Your task to perform on an android device: toggle location history Image 0: 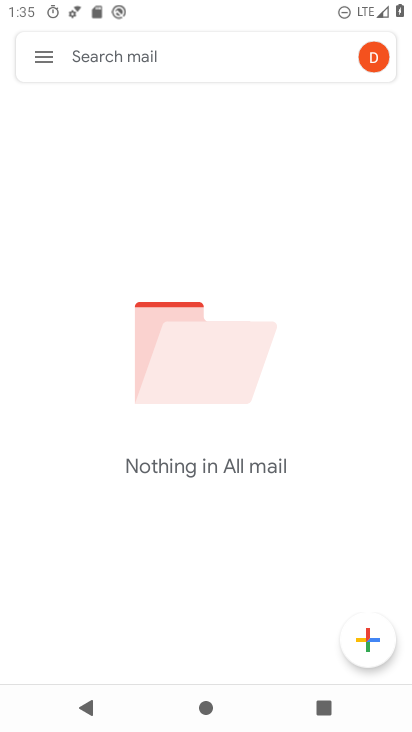
Step 0: press home button
Your task to perform on an android device: toggle location history Image 1: 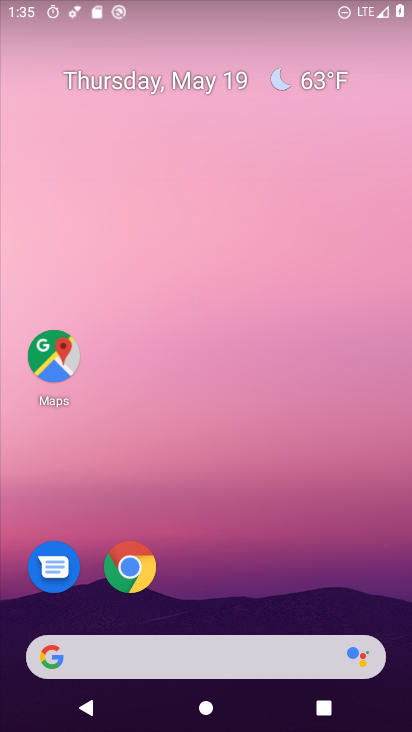
Step 1: drag from (157, 659) to (272, 171)
Your task to perform on an android device: toggle location history Image 2: 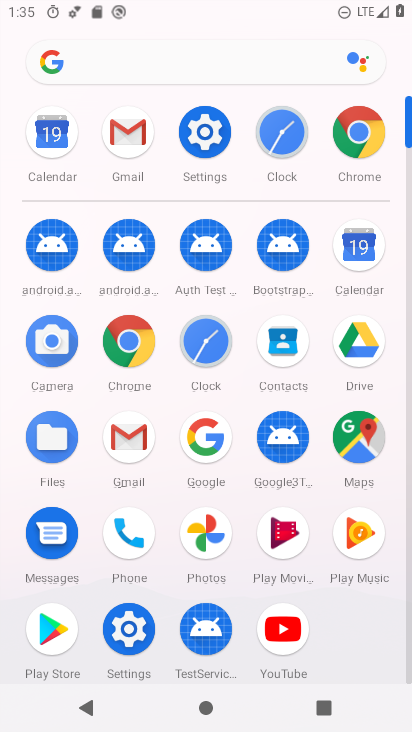
Step 2: click (360, 446)
Your task to perform on an android device: toggle location history Image 3: 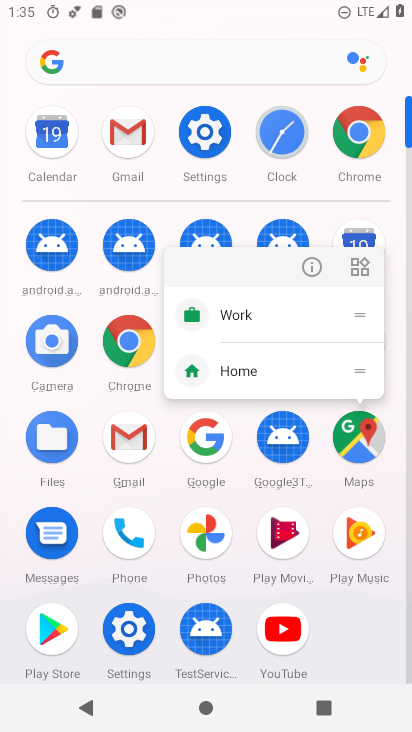
Step 3: click (363, 447)
Your task to perform on an android device: toggle location history Image 4: 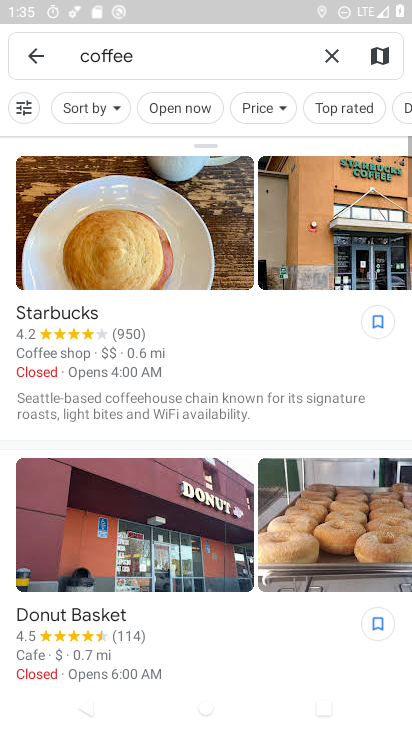
Step 4: click (35, 54)
Your task to perform on an android device: toggle location history Image 5: 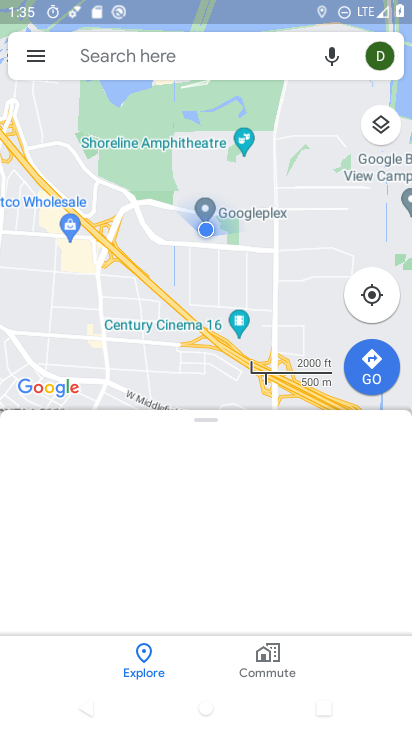
Step 5: click (42, 54)
Your task to perform on an android device: toggle location history Image 6: 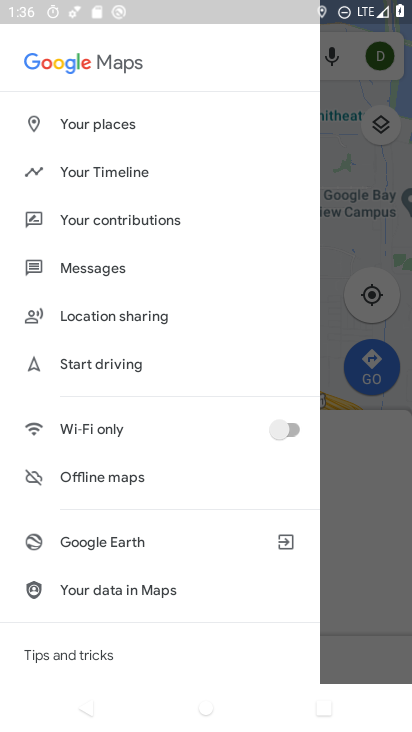
Step 6: click (121, 166)
Your task to perform on an android device: toggle location history Image 7: 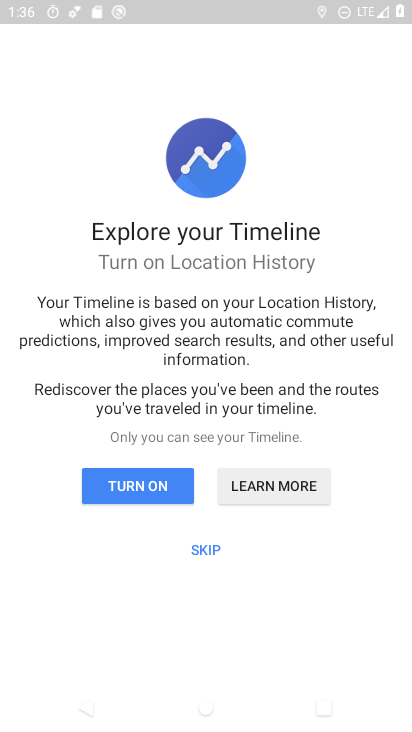
Step 7: click (211, 542)
Your task to perform on an android device: toggle location history Image 8: 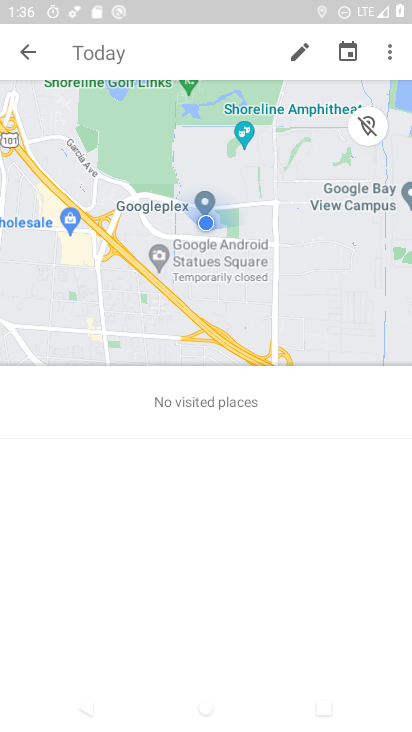
Step 8: click (390, 54)
Your task to perform on an android device: toggle location history Image 9: 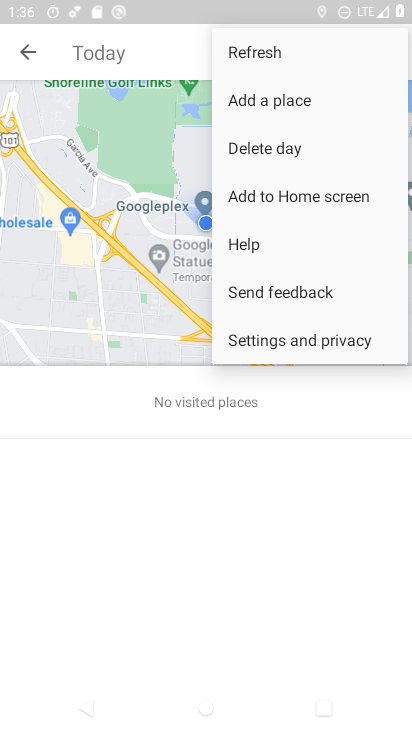
Step 9: click (276, 340)
Your task to perform on an android device: toggle location history Image 10: 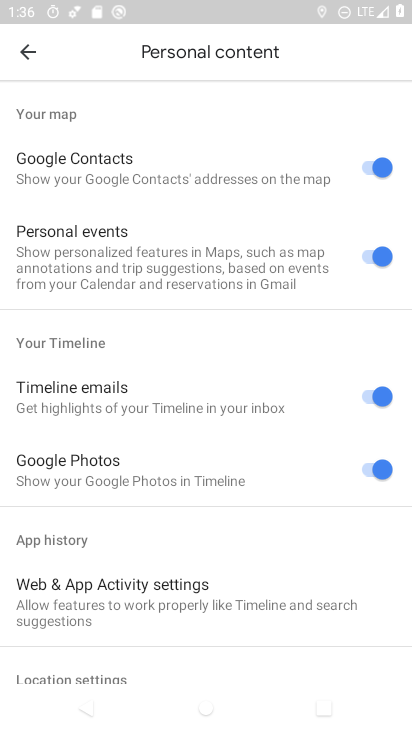
Step 10: drag from (189, 592) to (247, 265)
Your task to perform on an android device: toggle location history Image 11: 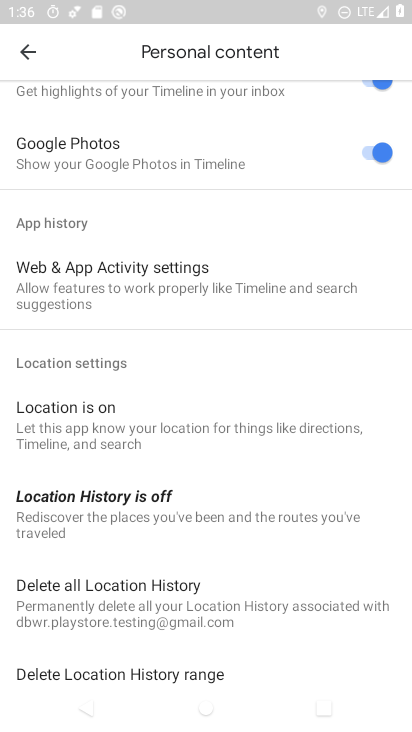
Step 11: click (128, 503)
Your task to perform on an android device: toggle location history Image 12: 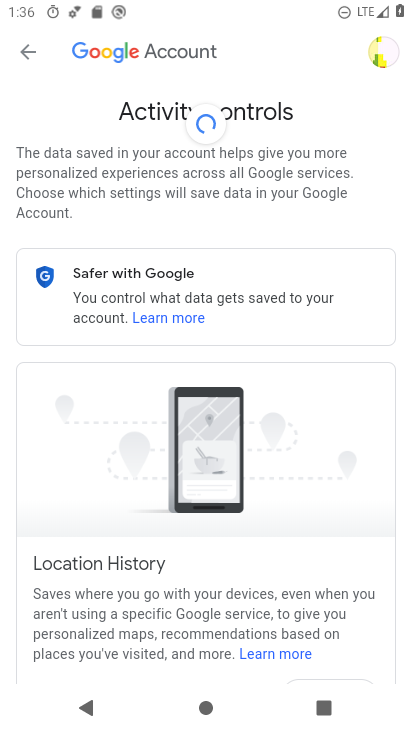
Step 12: drag from (189, 621) to (279, 173)
Your task to perform on an android device: toggle location history Image 13: 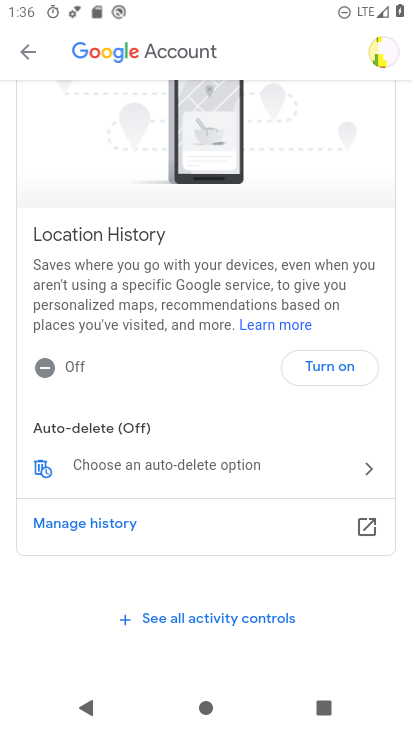
Step 13: click (331, 366)
Your task to perform on an android device: toggle location history Image 14: 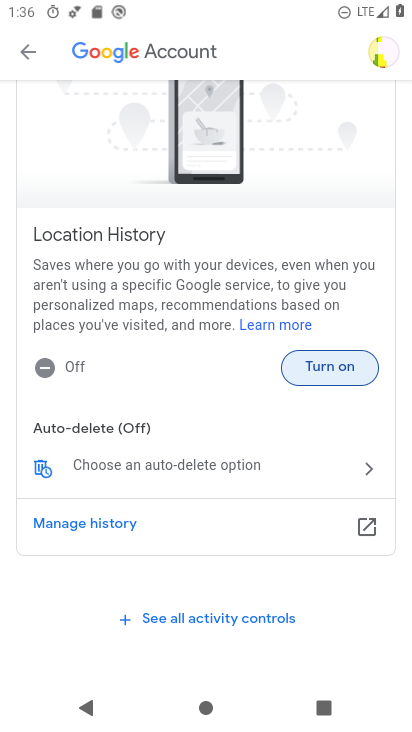
Step 14: click (331, 368)
Your task to perform on an android device: toggle location history Image 15: 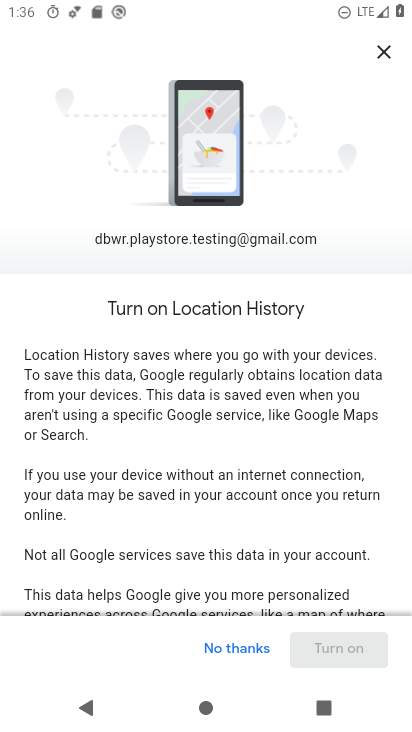
Step 15: drag from (202, 560) to (305, 193)
Your task to perform on an android device: toggle location history Image 16: 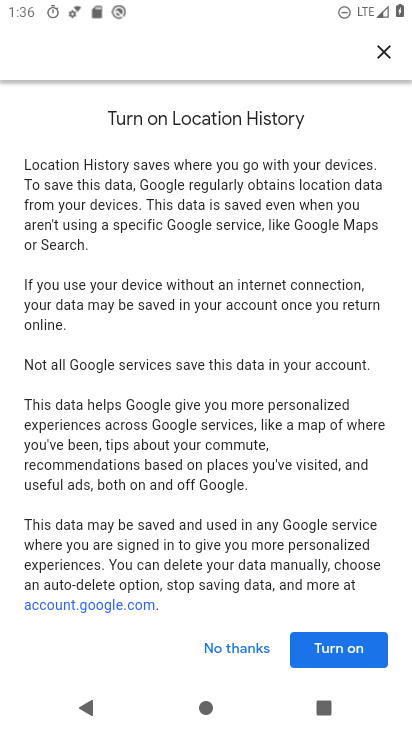
Step 16: click (339, 649)
Your task to perform on an android device: toggle location history Image 17: 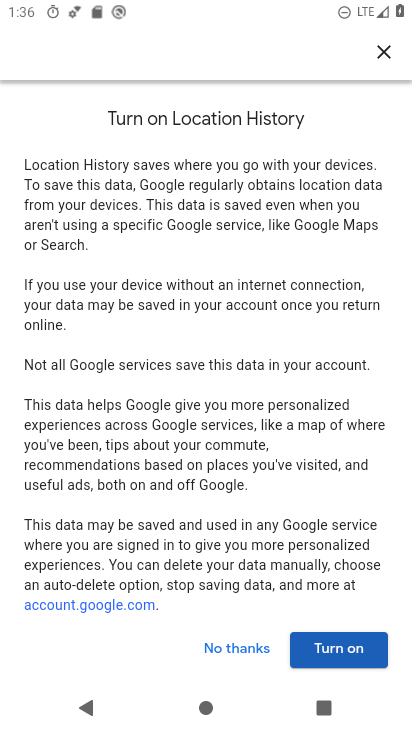
Step 17: click (345, 644)
Your task to perform on an android device: toggle location history Image 18: 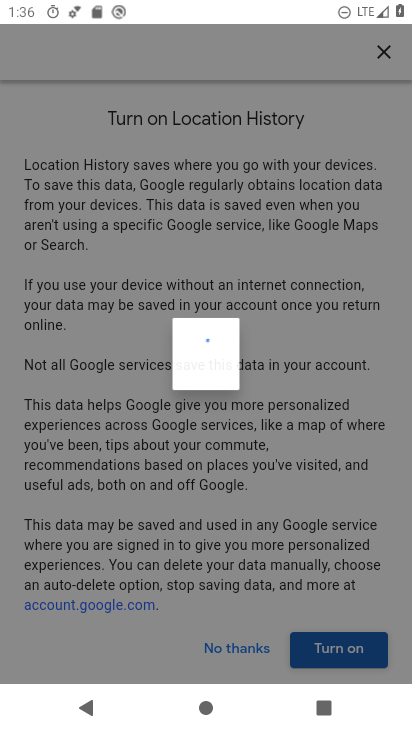
Step 18: click (342, 645)
Your task to perform on an android device: toggle location history Image 19: 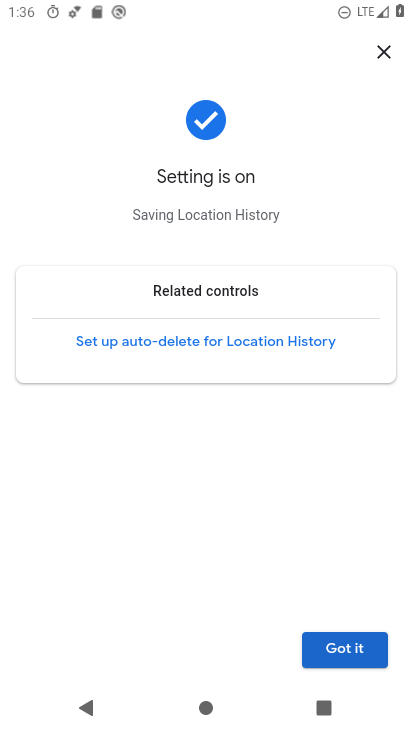
Step 19: click (321, 657)
Your task to perform on an android device: toggle location history Image 20: 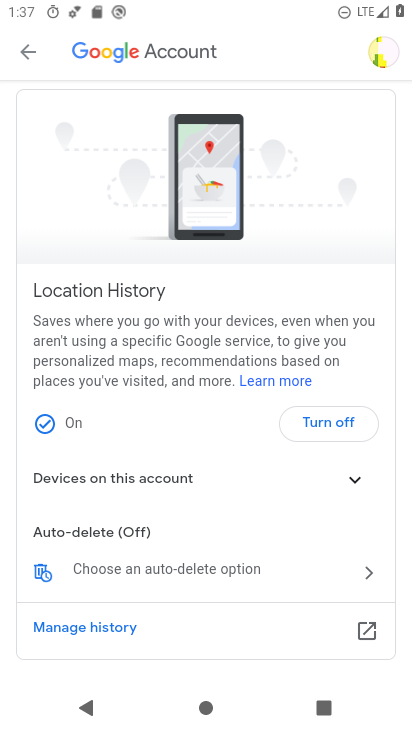
Step 20: task complete